Your task to perform on an android device: Open sound settings Image 0: 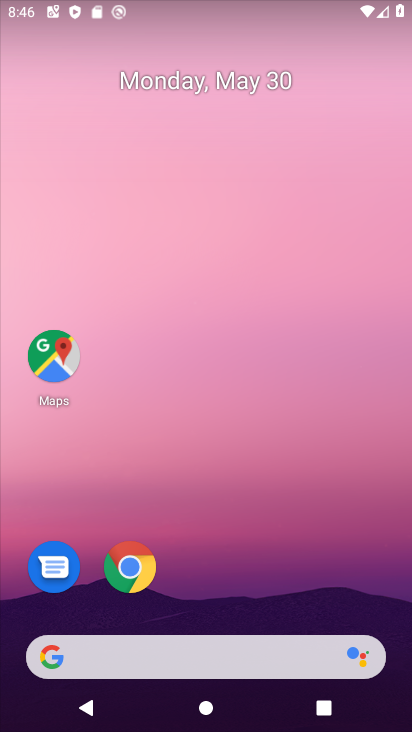
Step 0: drag from (181, 626) to (344, 54)
Your task to perform on an android device: Open sound settings Image 1: 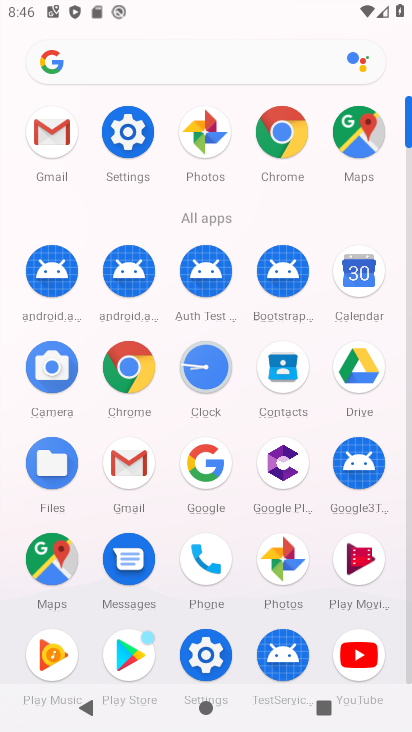
Step 1: click (134, 121)
Your task to perform on an android device: Open sound settings Image 2: 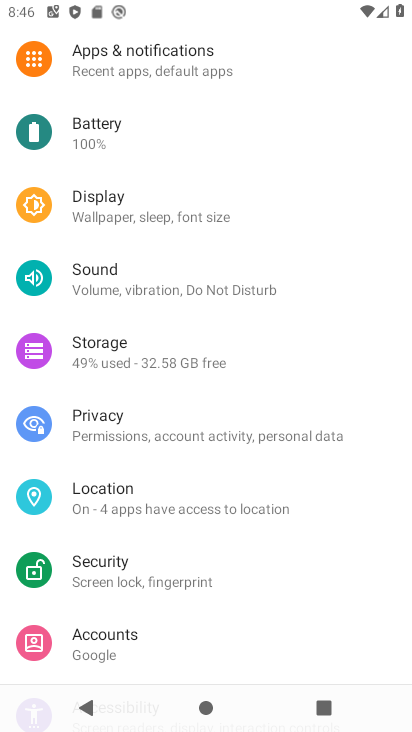
Step 2: click (114, 276)
Your task to perform on an android device: Open sound settings Image 3: 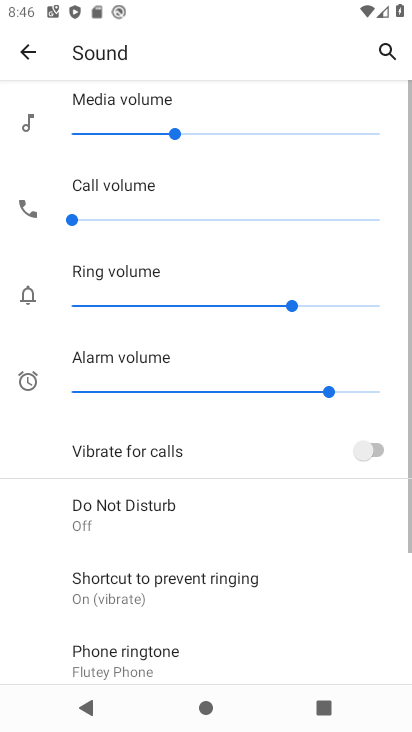
Step 3: task complete